Your task to perform on an android device: Open the Play Movies app and select the watchlist tab. Image 0: 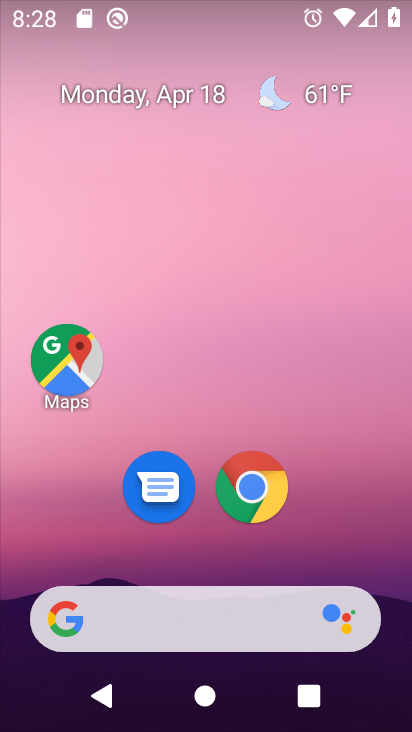
Step 0: drag from (212, 494) to (228, 41)
Your task to perform on an android device: Open the Play Movies app and select the watchlist tab. Image 1: 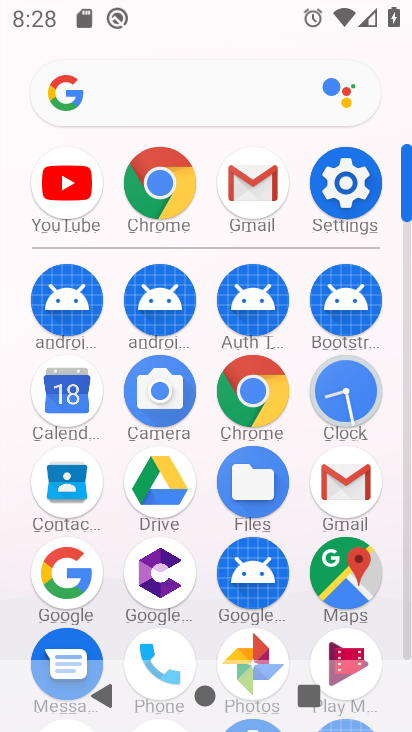
Step 1: drag from (295, 524) to (318, 148)
Your task to perform on an android device: Open the Play Movies app and select the watchlist tab. Image 2: 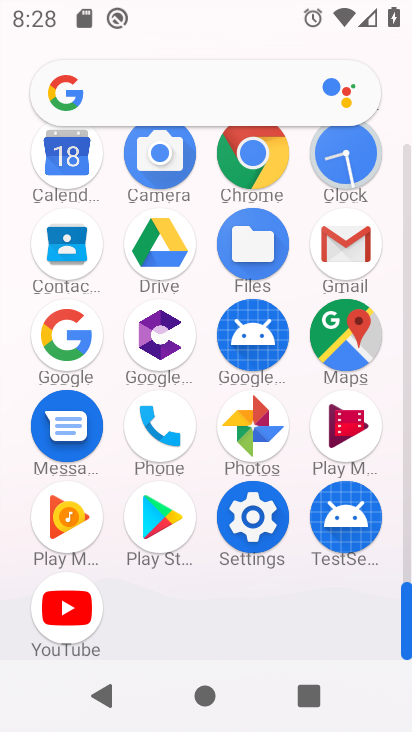
Step 2: click (344, 418)
Your task to perform on an android device: Open the Play Movies app and select the watchlist tab. Image 3: 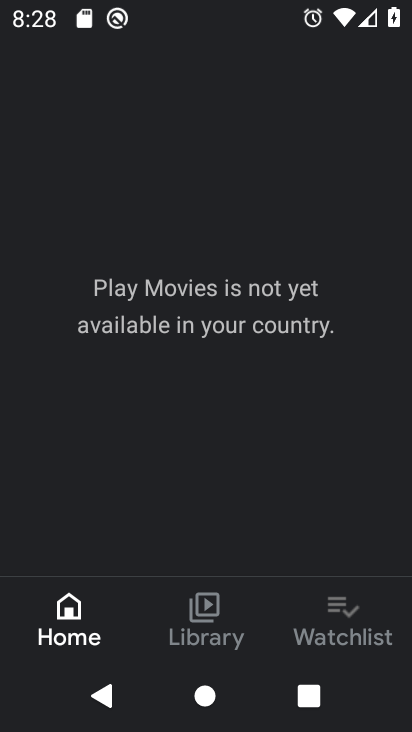
Step 3: click (336, 603)
Your task to perform on an android device: Open the Play Movies app and select the watchlist tab. Image 4: 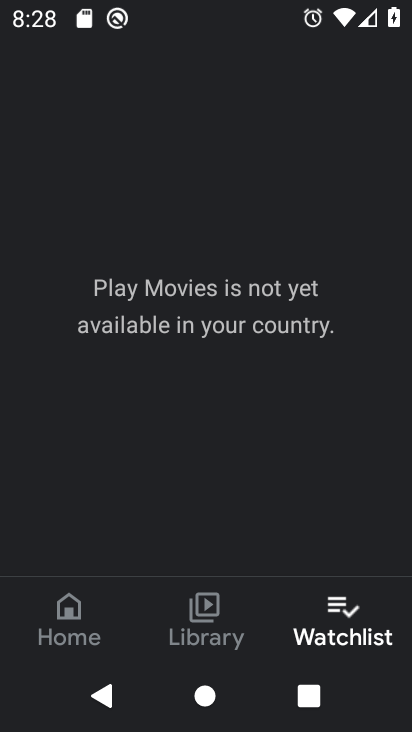
Step 4: task complete